Your task to perform on an android device: Open Youtube and go to "Your channel" Image 0: 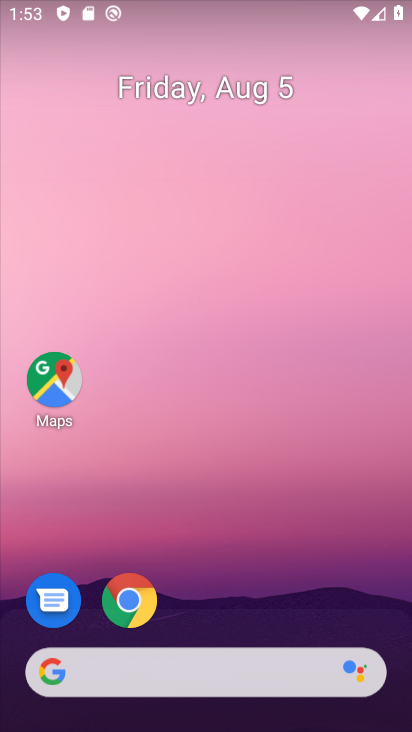
Step 0: drag from (234, 592) to (199, 124)
Your task to perform on an android device: Open Youtube and go to "Your channel" Image 1: 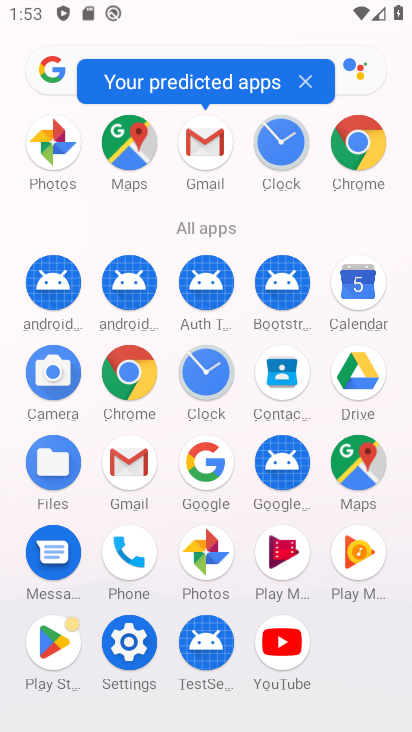
Step 1: click (277, 648)
Your task to perform on an android device: Open Youtube and go to "Your channel" Image 2: 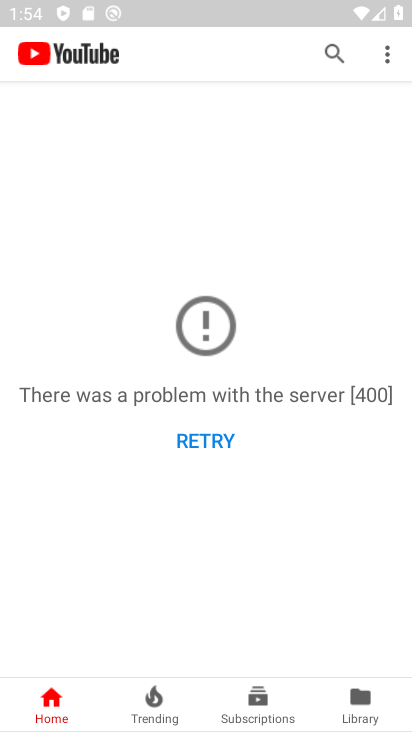
Step 2: click (217, 435)
Your task to perform on an android device: Open Youtube and go to "Your channel" Image 3: 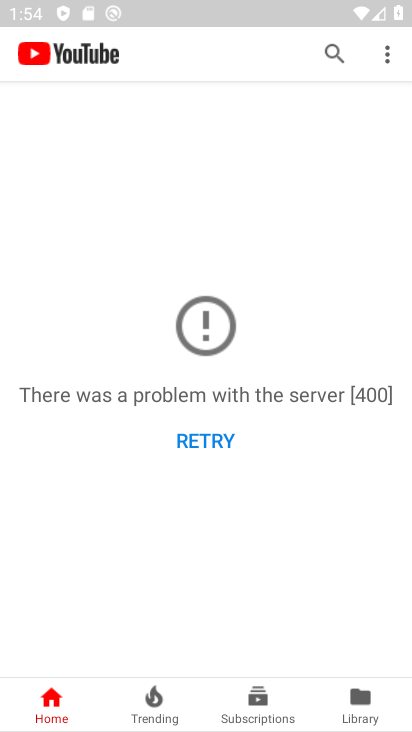
Step 3: click (217, 435)
Your task to perform on an android device: Open Youtube and go to "Your channel" Image 4: 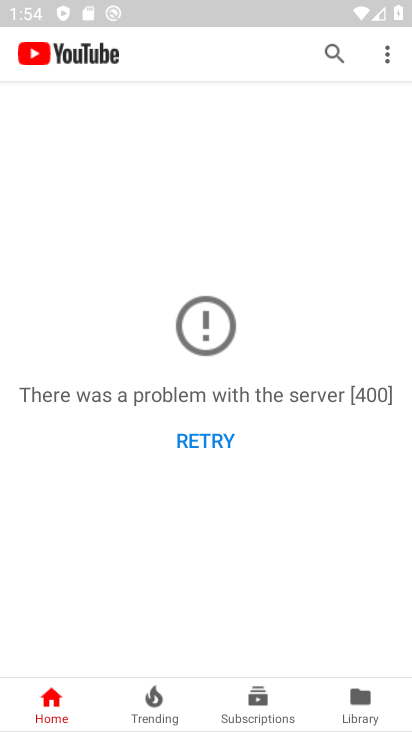
Step 4: task complete